Your task to perform on an android device: Do I have any events tomorrow? Image 0: 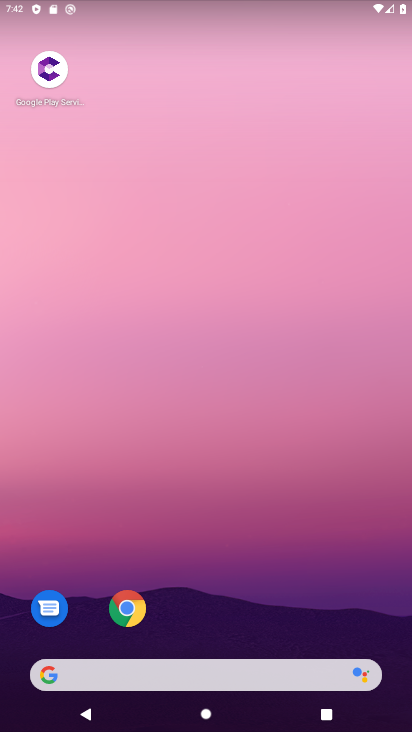
Step 0: drag from (220, 641) to (260, 0)
Your task to perform on an android device: Do I have any events tomorrow? Image 1: 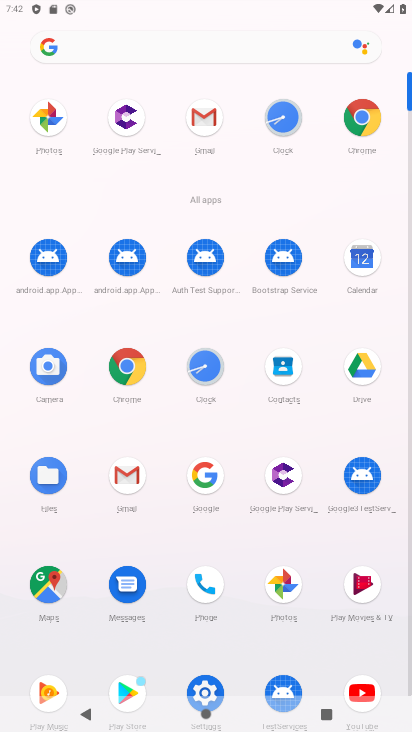
Step 1: click (346, 264)
Your task to perform on an android device: Do I have any events tomorrow? Image 2: 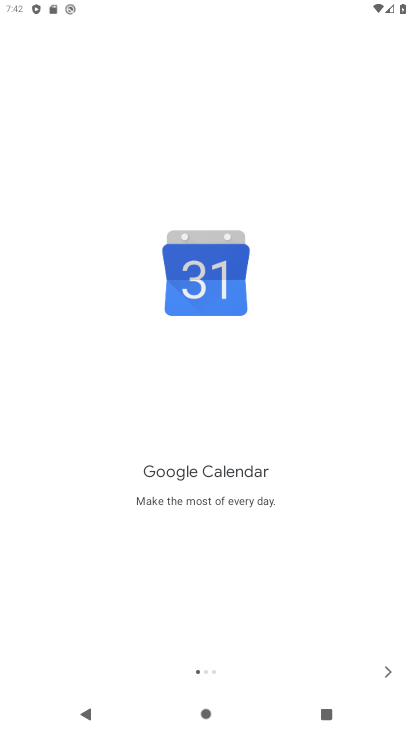
Step 2: click (389, 681)
Your task to perform on an android device: Do I have any events tomorrow? Image 3: 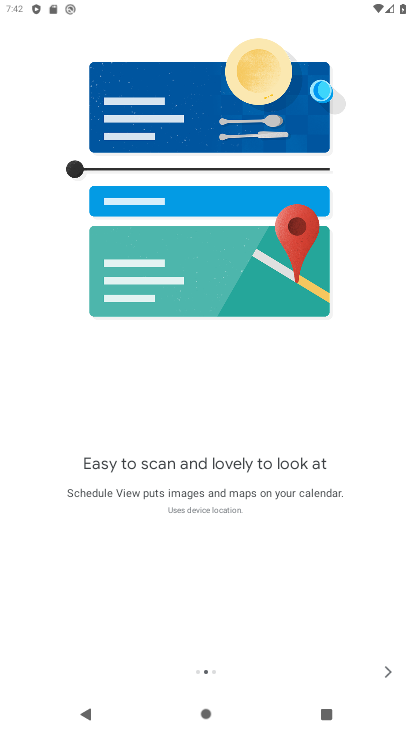
Step 3: click (381, 675)
Your task to perform on an android device: Do I have any events tomorrow? Image 4: 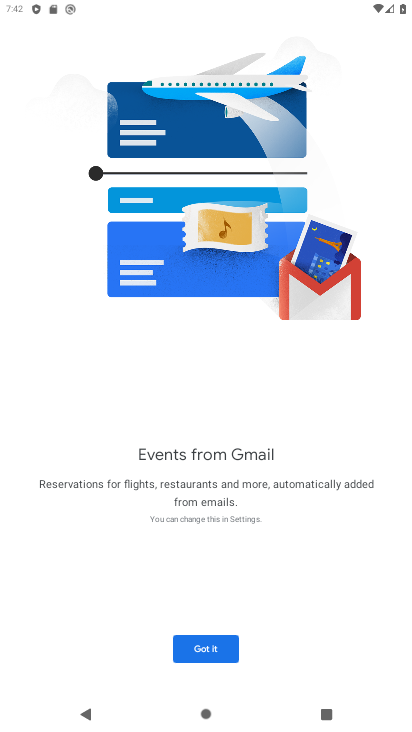
Step 4: click (210, 659)
Your task to perform on an android device: Do I have any events tomorrow? Image 5: 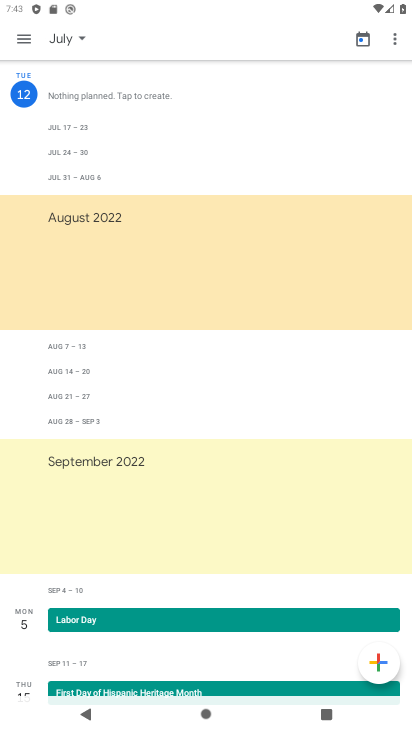
Step 5: click (14, 38)
Your task to perform on an android device: Do I have any events tomorrow? Image 6: 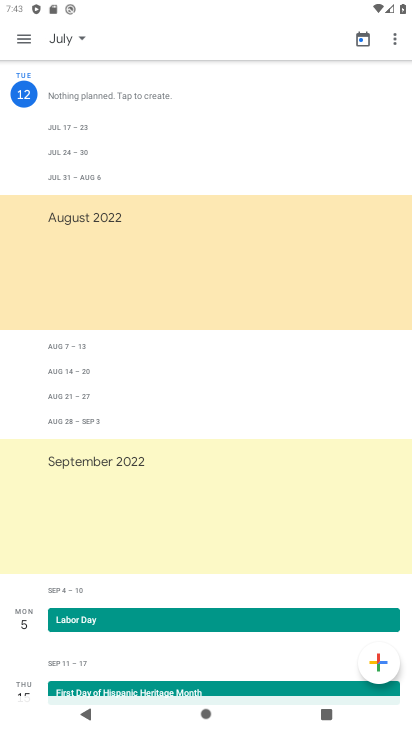
Step 6: click (21, 41)
Your task to perform on an android device: Do I have any events tomorrow? Image 7: 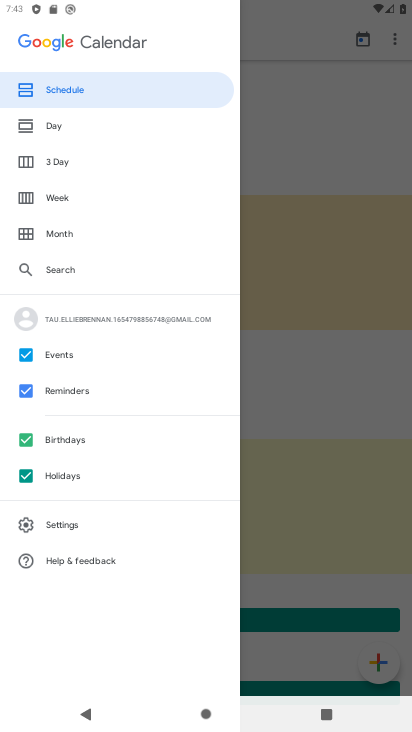
Step 7: click (68, 194)
Your task to perform on an android device: Do I have any events tomorrow? Image 8: 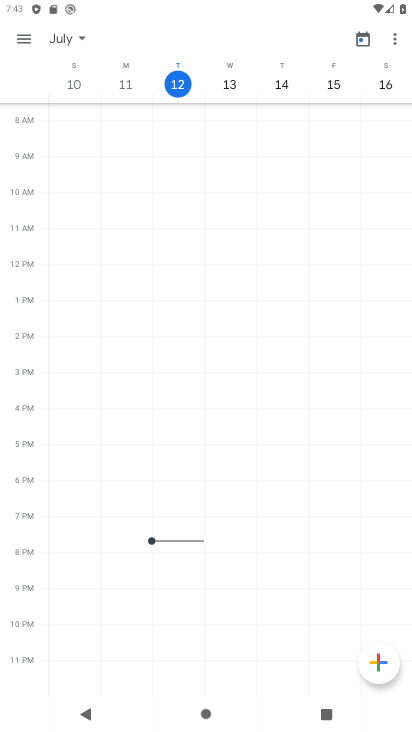
Step 8: click (216, 76)
Your task to perform on an android device: Do I have any events tomorrow? Image 9: 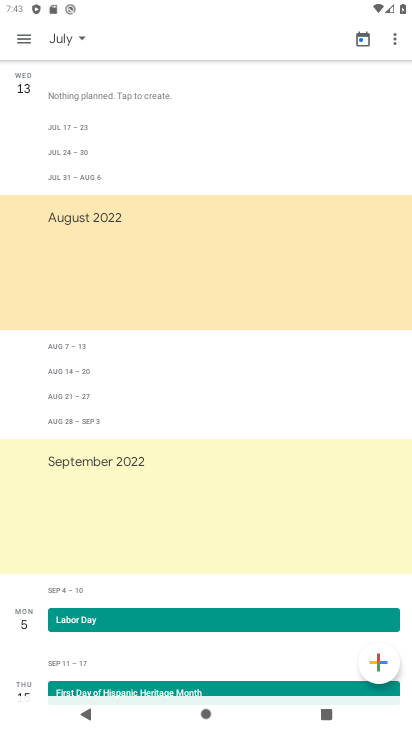
Step 9: task complete